Your task to perform on an android device: open a new tab in the chrome app Image 0: 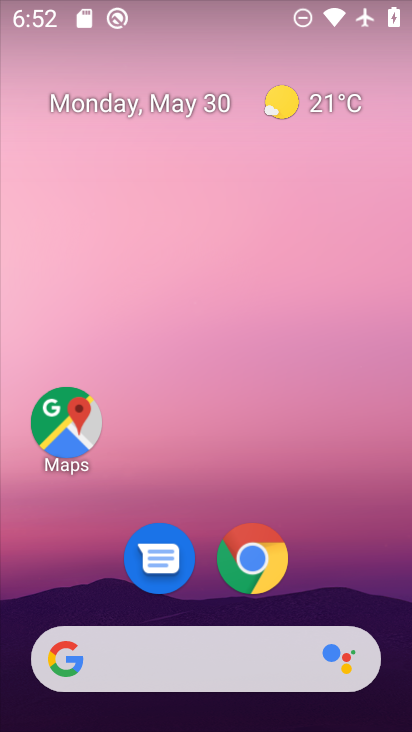
Step 0: click (253, 557)
Your task to perform on an android device: open a new tab in the chrome app Image 1: 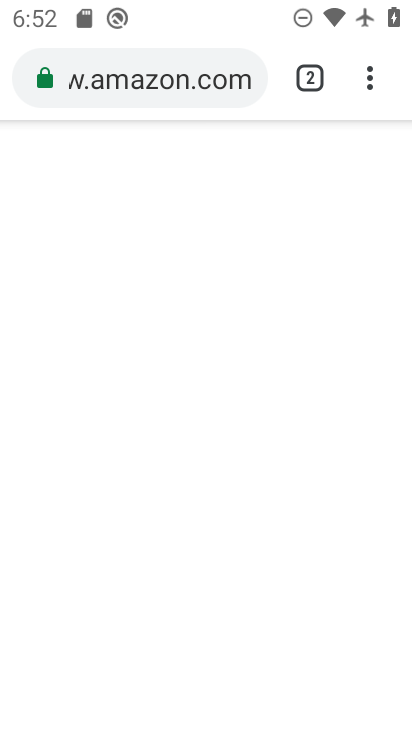
Step 1: click (367, 73)
Your task to perform on an android device: open a new tab in the chrome app Image 2: 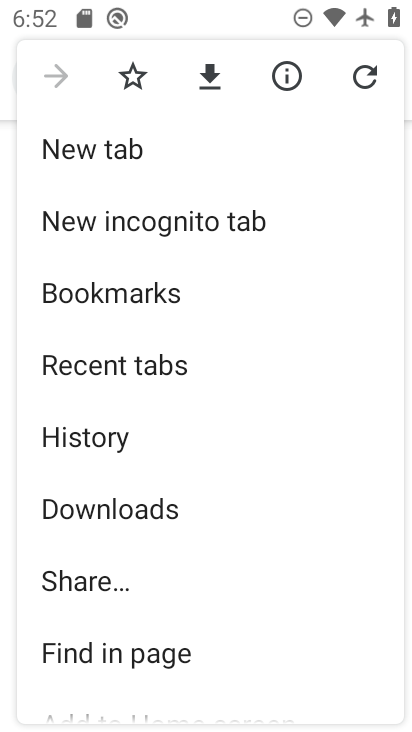
Step 2: click (116, 148)
Your task to perform on an android device: open a new tab in the chrome app Image 3: 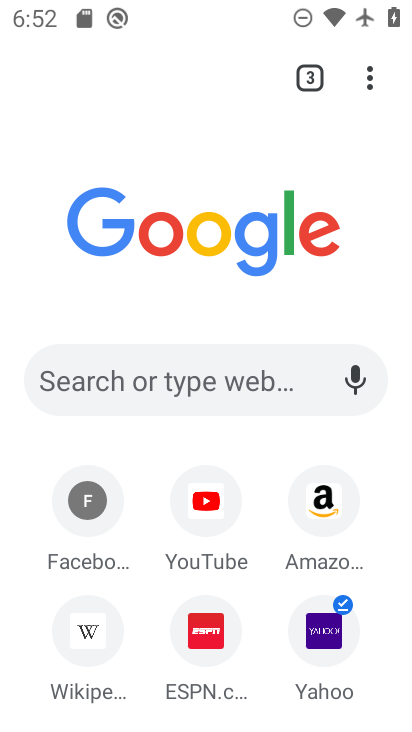
Step 3: task complete